Your task to perform on an android device: add a label to a message in the gmail app Image 0: 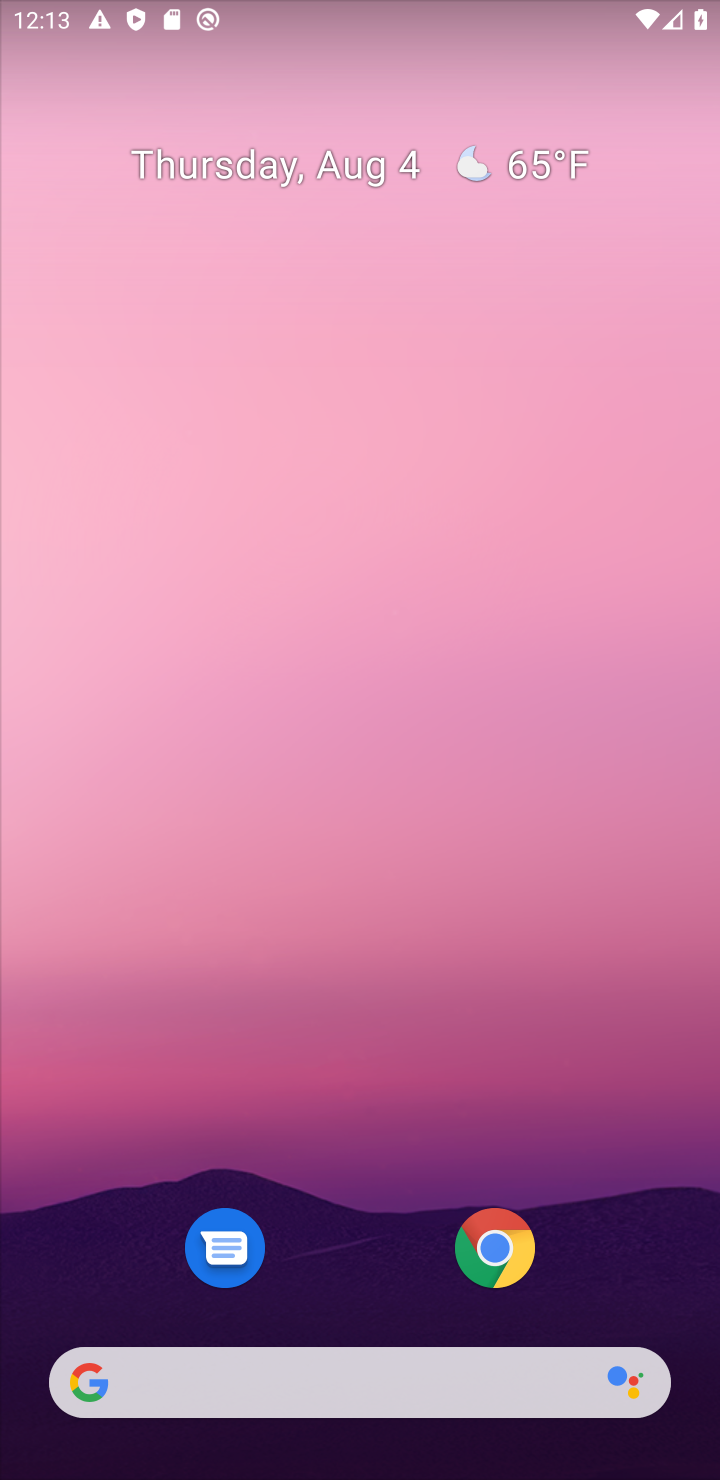
Step 0: press home button
Your task to perform on an android device: add a label to a message in the gmail app Image 1: 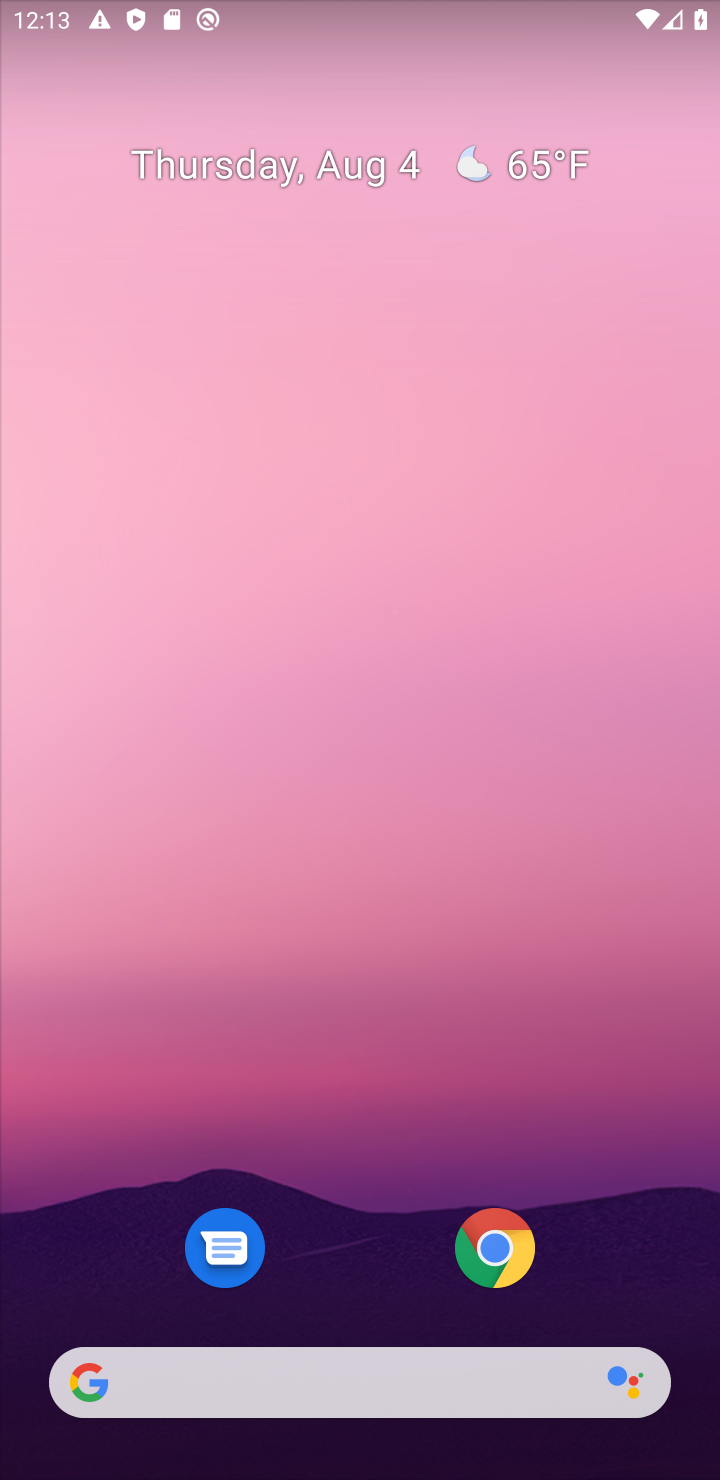
Step 1: drag from (402, 1305) to (285, 122)
Your task to perform on an android device: add a label to a message in the gmail app Image 2: 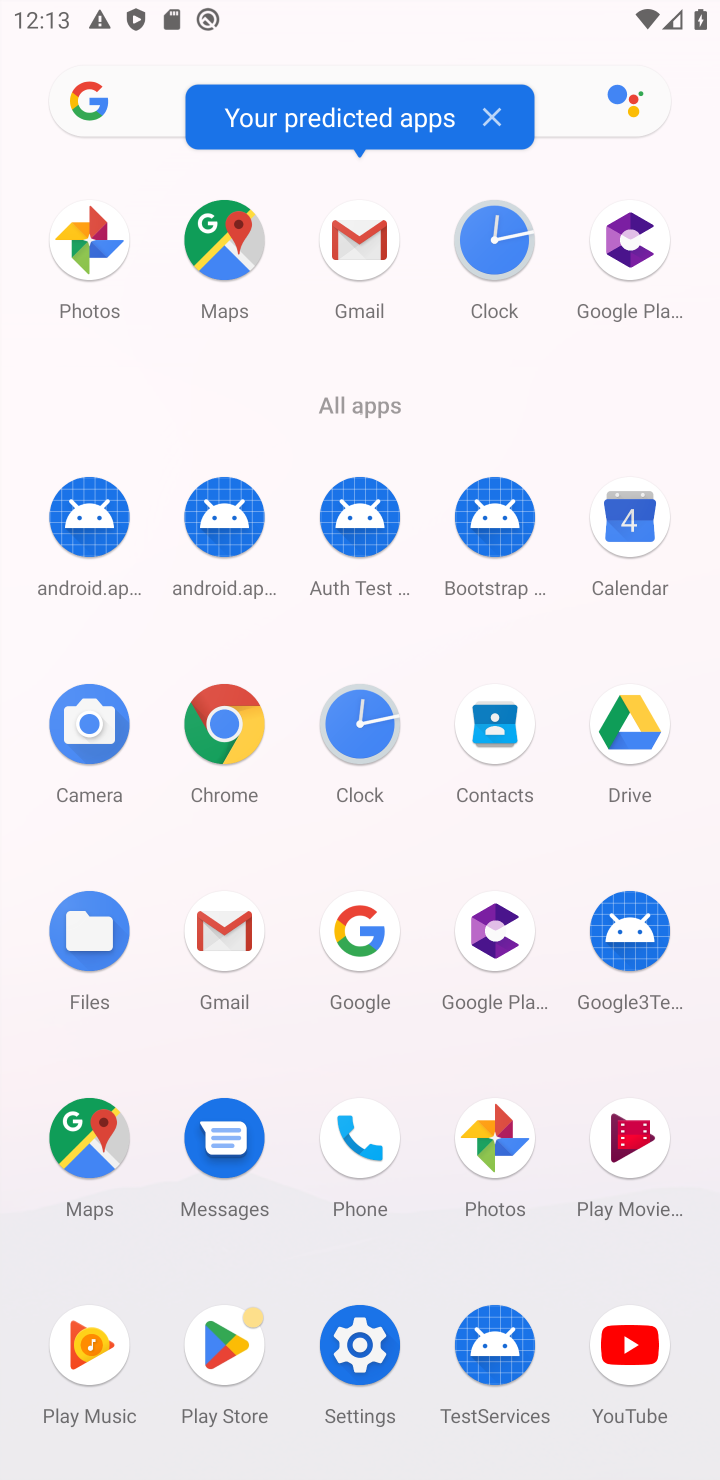
Step 2: click (223, 919)
Your task to perform on an android device: add a label to a message in the gmail app Image 3: 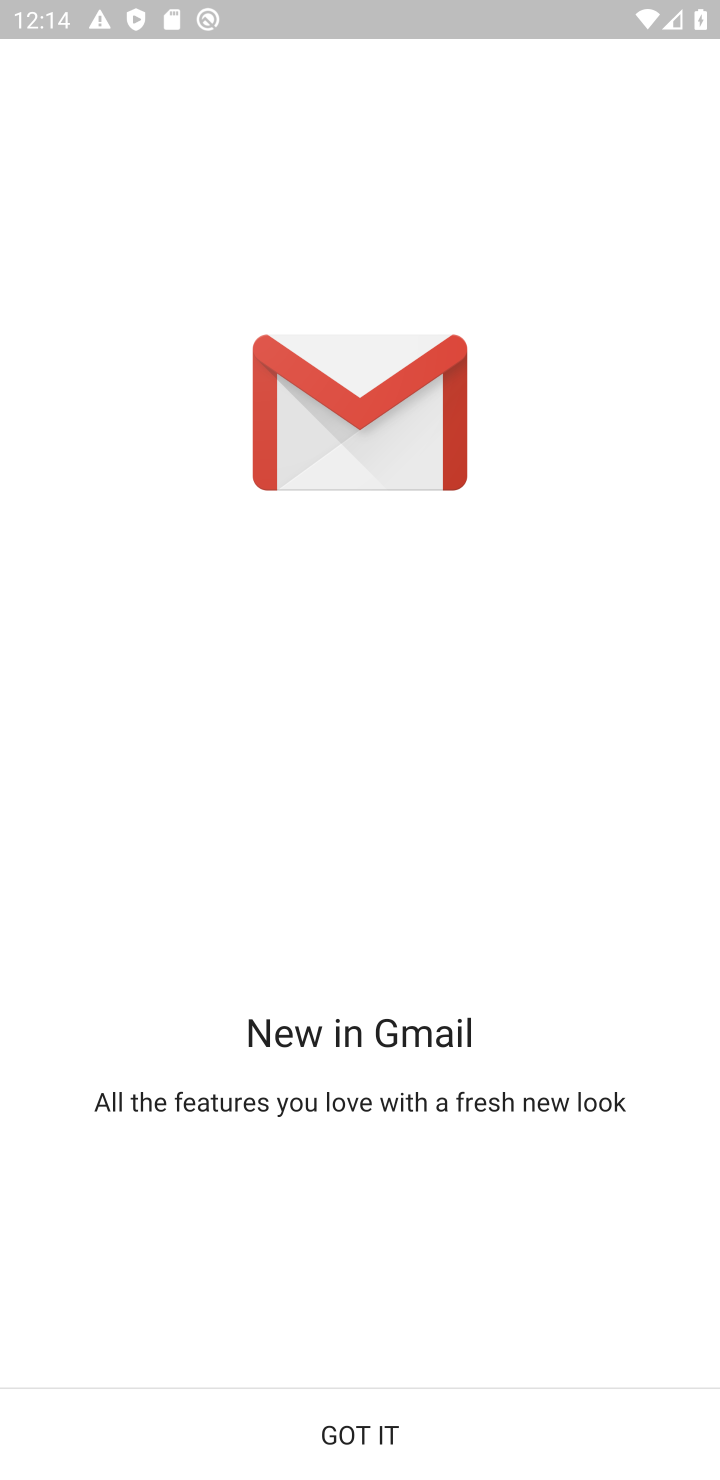
Step 3: click (358, 1427)
Your task to perform on an android device: add a label to a message in the gmail app Image 4: 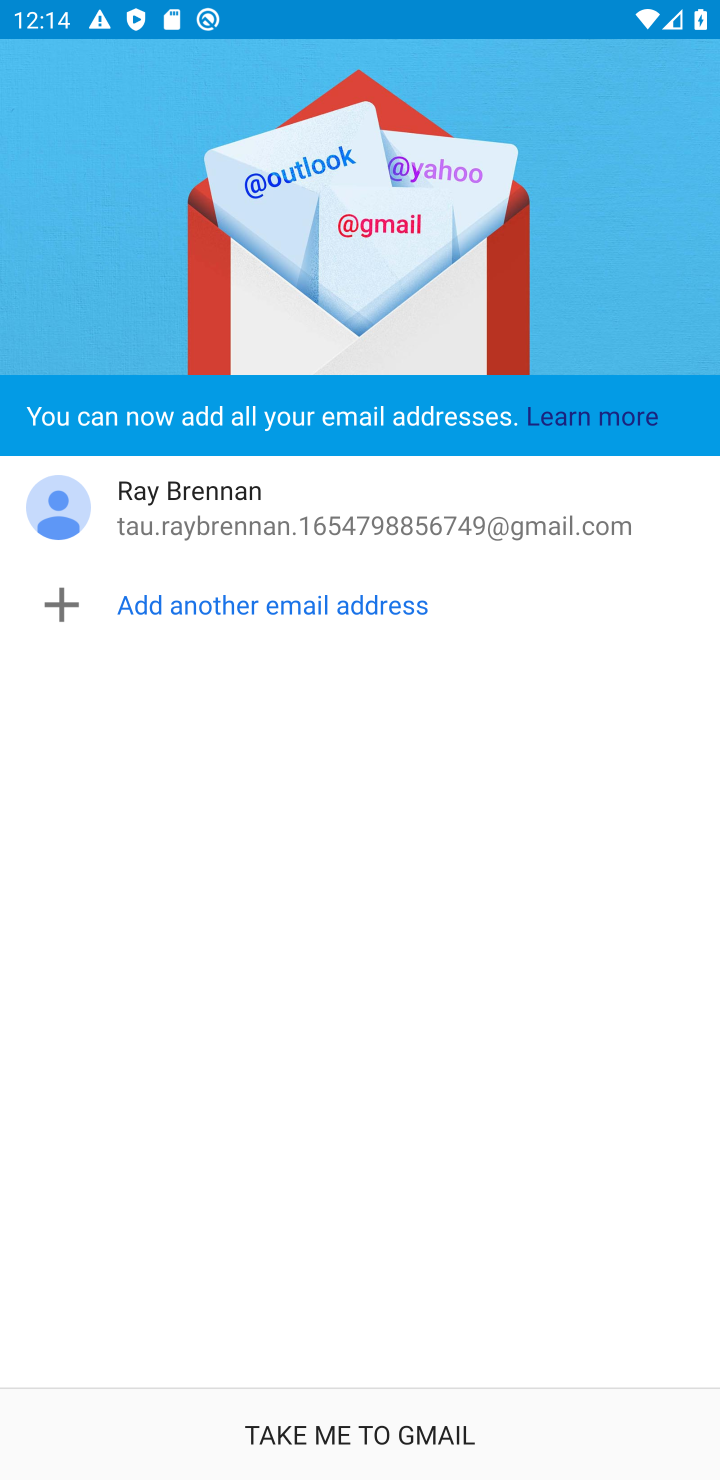
Step 4: click (362, 1445)
Your task to perform on an android device: add a label to a message in the gmail app Image 5: 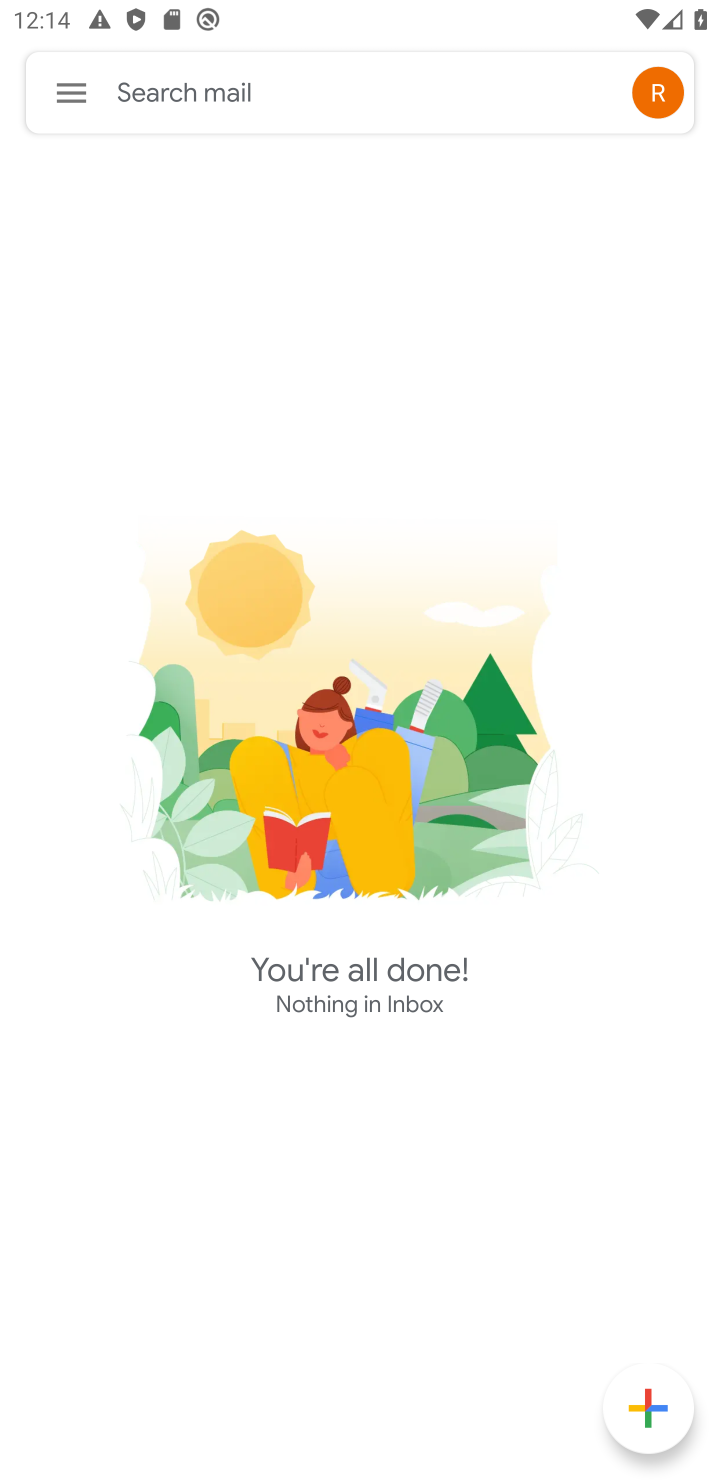
Step 5: task complete